Your task to perform on an android device: Open settings Image 0: 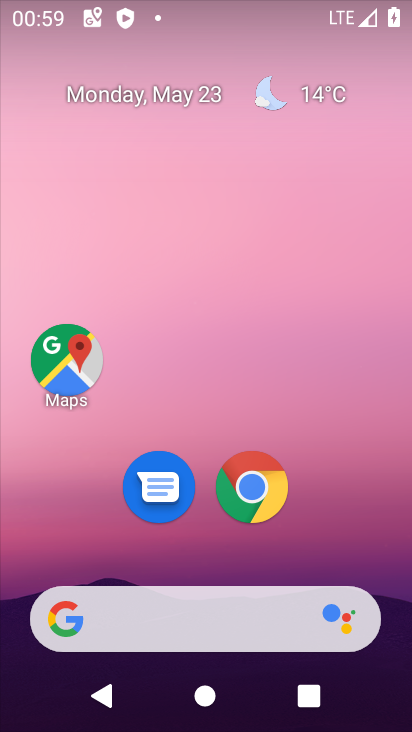
Step 0: drag from (399, 601) to (289, 140)
Your task to perform on an android device: Open settings Image 1: 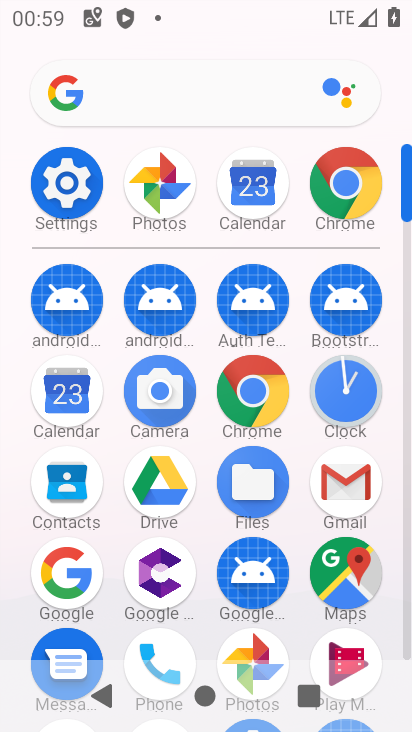
Step 1: click (405, 646)
Your task to perform on an android device: Open settings Image 2: 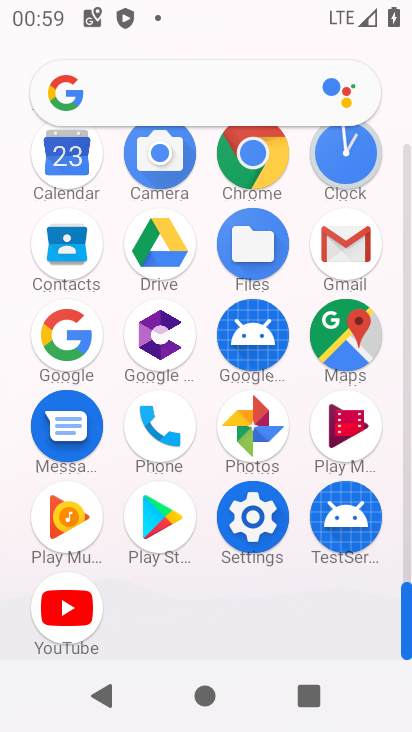
Step 2: click (252, 518)
Your task to perform on an android device: Open settings Image 3: 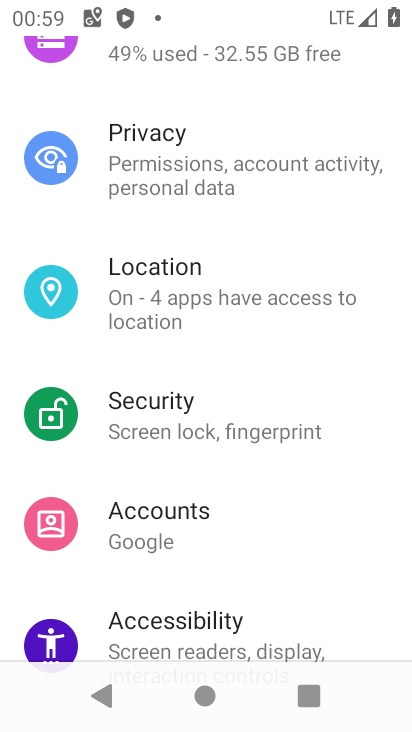
Step 3: task complete